Your task to perform on an android device: see sites visited before in the chrome app Image 0: 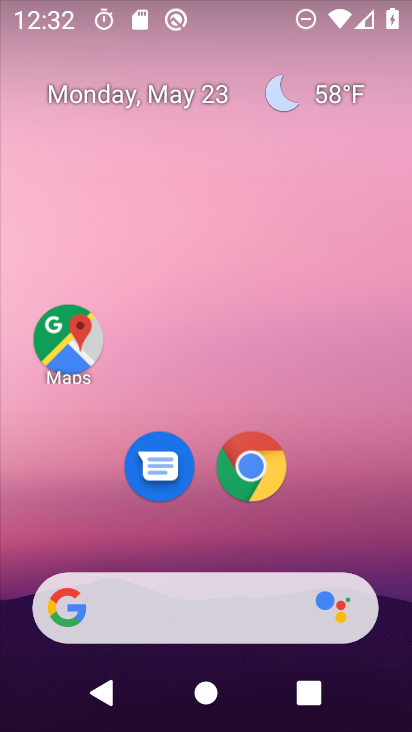
Step 0: drag from (214, 525) to (229, 80)
Your task to perform on an android device: see sites visited before in the chrome app Image 1: 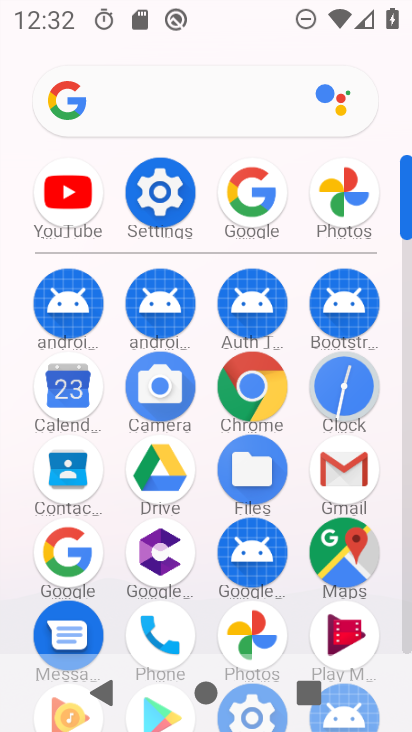
Step 1: click (256, 385)
Your task to perform on an android device: see sites visited before in the chrome app Image 2: 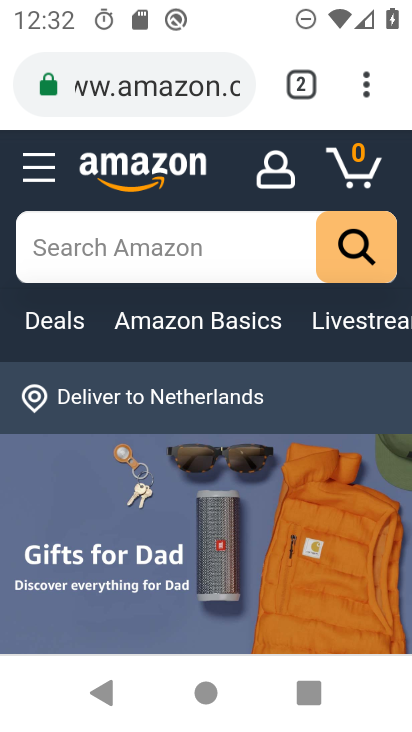
Step 2: click (354, 95)
Your task to perform on an android device: see sites visited before in the chrome app Image 3: 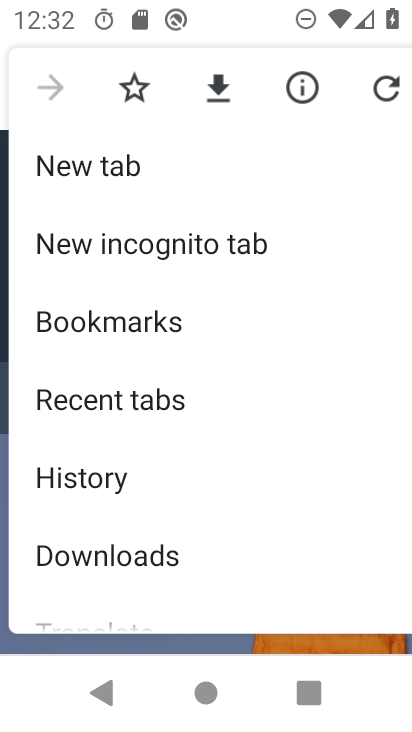
Step 3: drag from (225, 501) to (293, 63)
Your task to perform on an android device: see sites visited before in the chrome app Image 4: 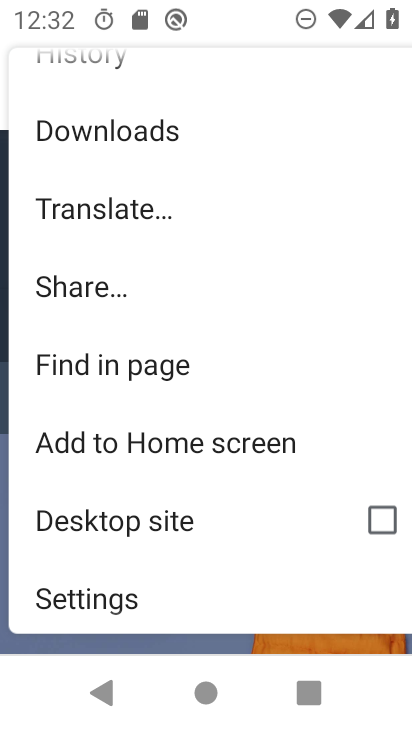
Step 4: drag from (141, 171) to (144, 450)
Your task to perform on an android device: see sites visited before in the chrome app Image 5: 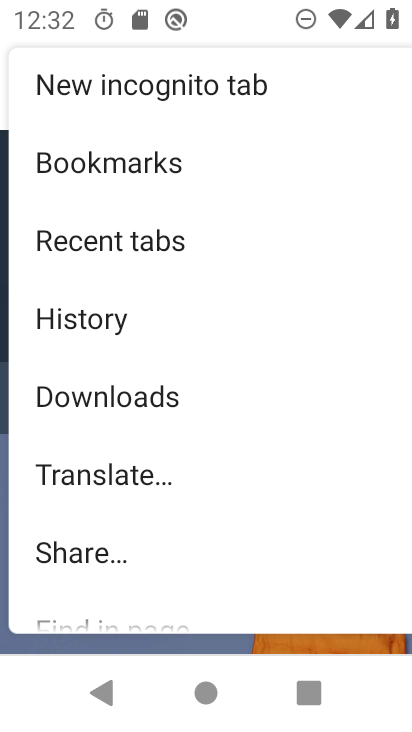
Step 5: click (86, 325)
Your task to perform on an android device: see sites visited before in the chrome app Image 6: 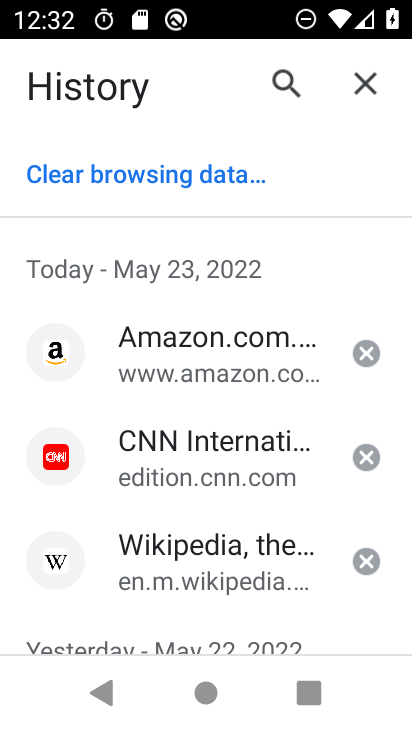
Step 6: task complete